Your task to perform on an android device: turn notification dots on Image 0: 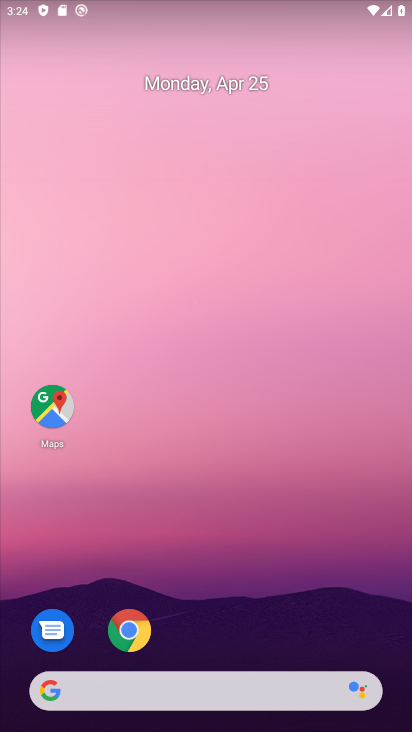
Step 0: drag from (196, 624) to (281, 63)
Your task to perform on an android device: turn notification dots on Image 1: 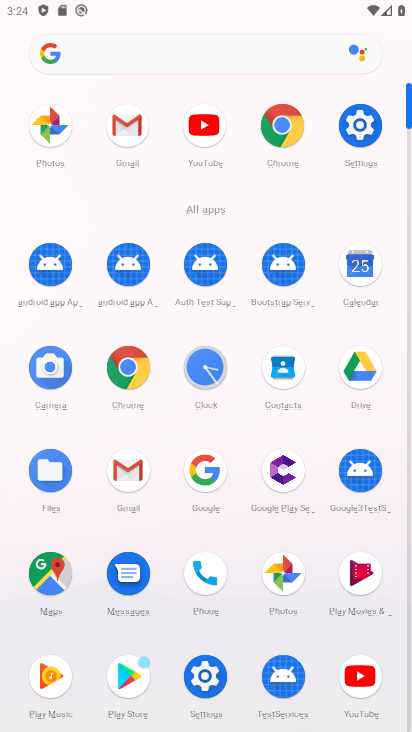
Step 1: click (344, 120)
Your task to perform on an android device: turn notification dots on Image 2: 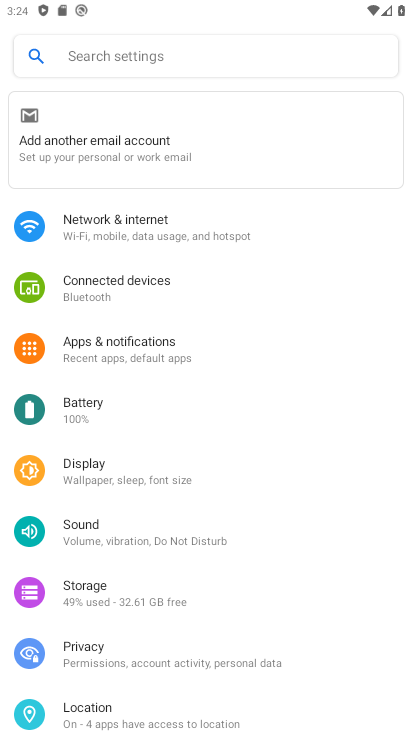
Step 2: click (172, 354)
Your task to perform on an android device: turn notification dots on Image 3: 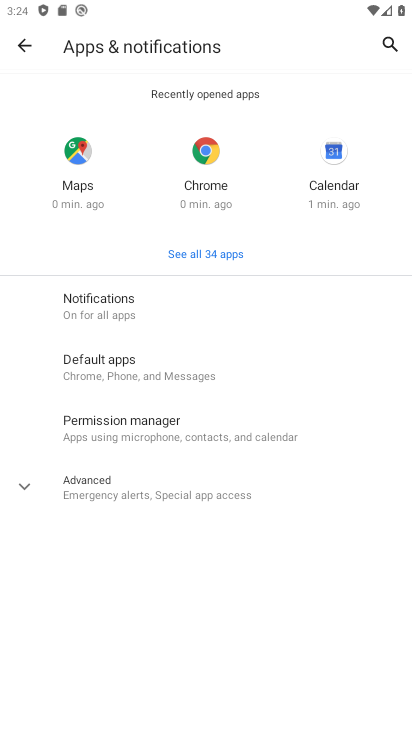
Step 3: click (169, 311)
Your task to perform on an android device: turn notification dots on Image 4: 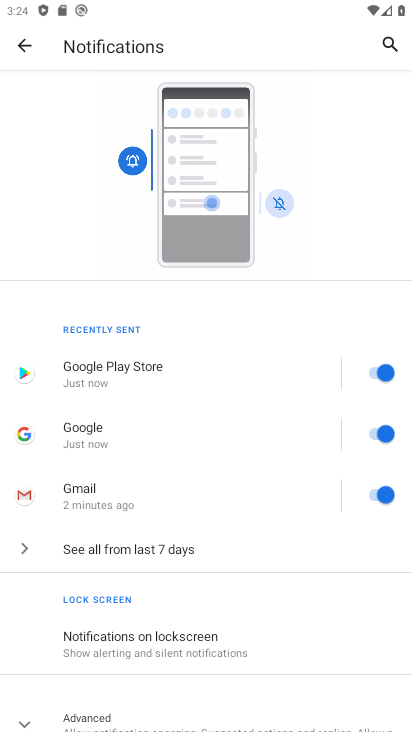
Step 4: click (135, 720)
Your task to perform on an android device: turn notification dots on Image 5: 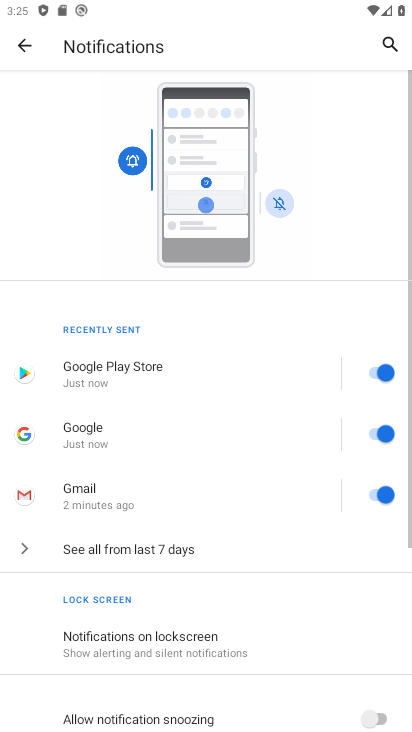
Step 5: drag from (158, 677) to (189, 204)
Your task to perform on an android device: turn notification dots on Image 6: 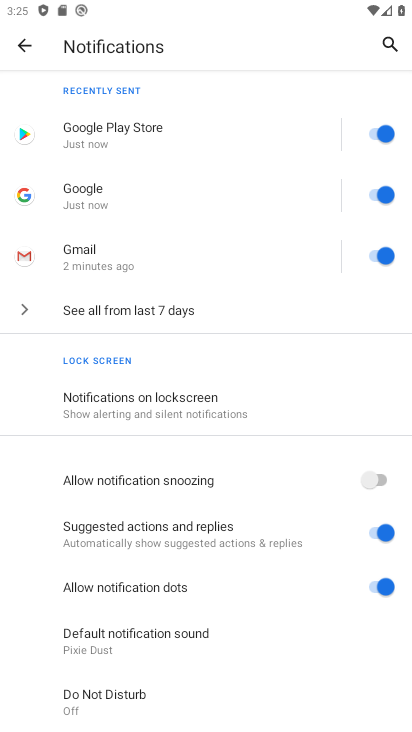
Step 6: click (378, 577)
Your task to perform on an android device: turn notification dots on Image 7: 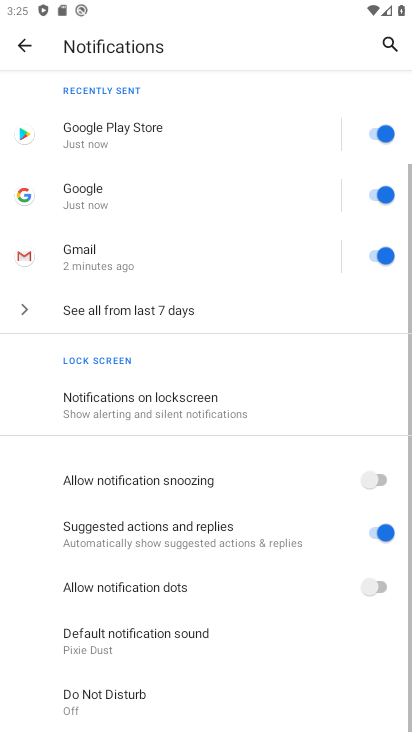
Step 7: task complete